Your task to perform on an android device: Go to Maps Image 0: 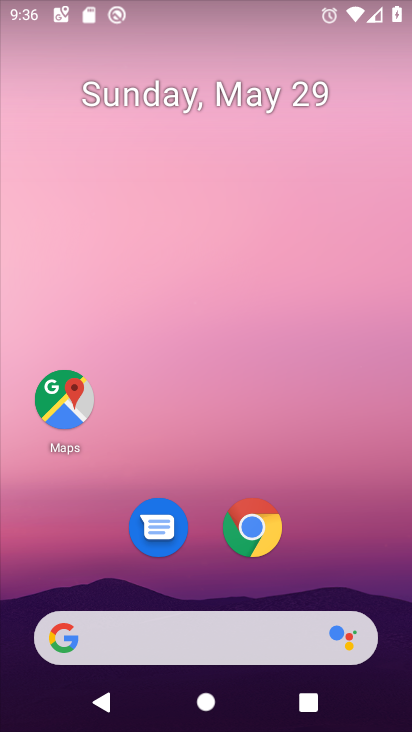
Step 0: click (67, 396)
Your task to perform on an android device: Go to Maps Image 1: 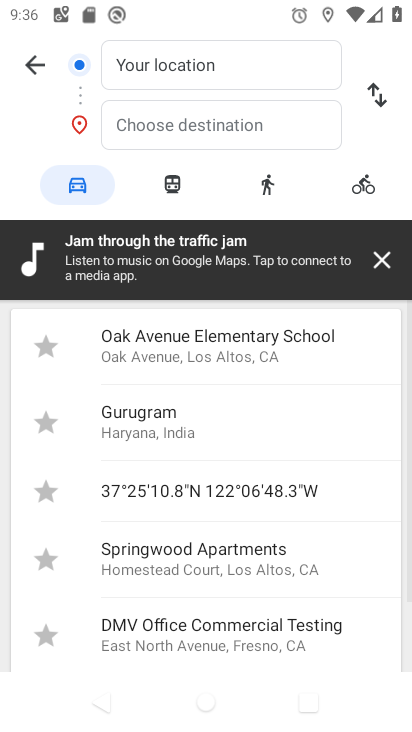
Step 1: task complete